Your task to perform on an android device: change timer sound Image 0: 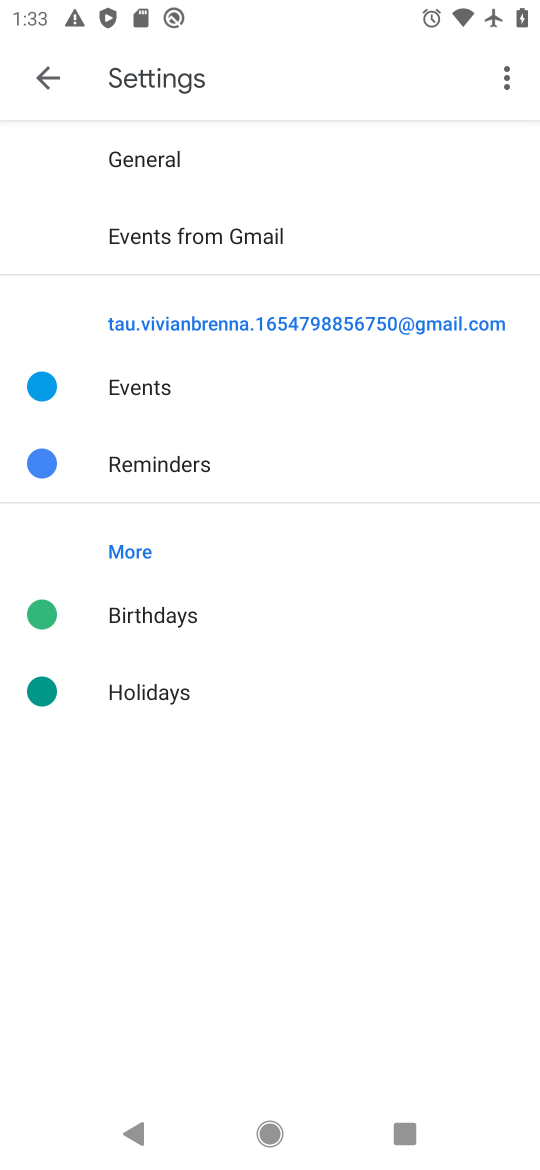
Step 0: press home button
Your task to perform on an android device: change timer sound Image 1: 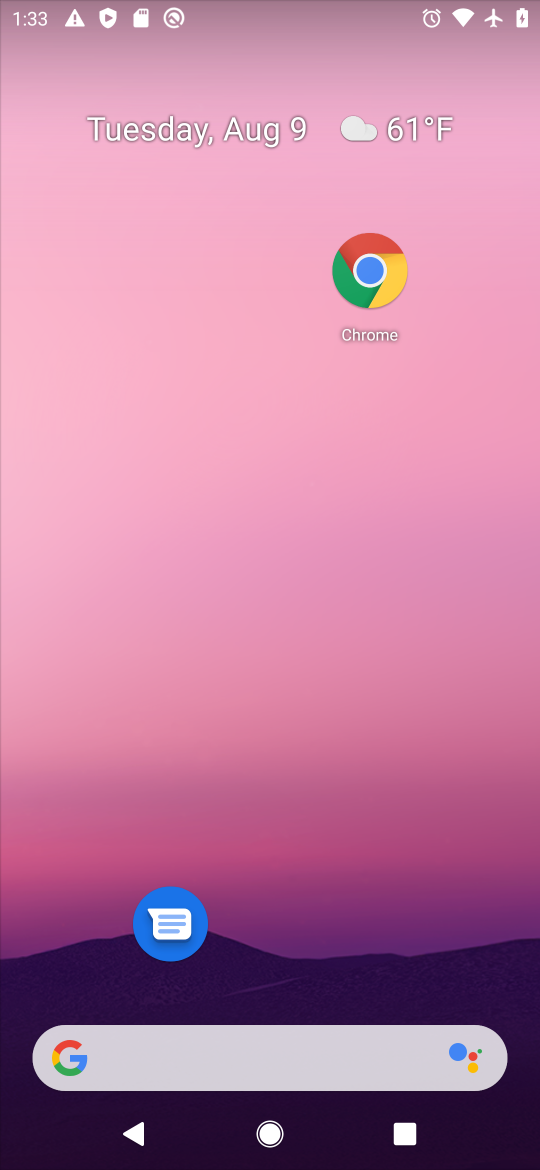
Step 1: drag from (331, 1015) to (274, 101)
Your task to perform on an android device: change timer sound Image 2: 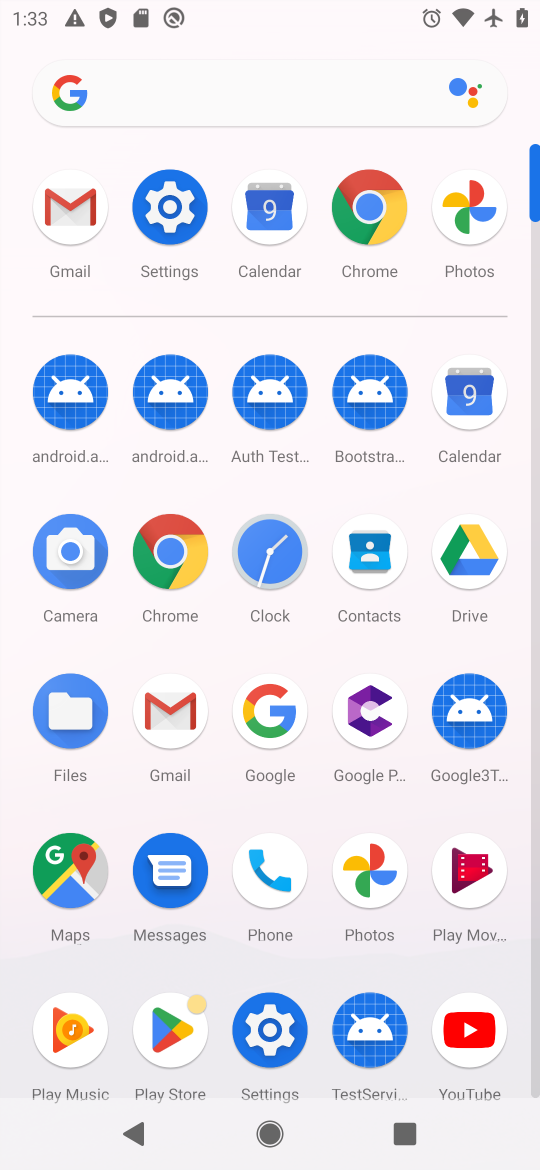
Step 2: click (197, 188)
Your task to perform on an android device: change timer sound Image 3: 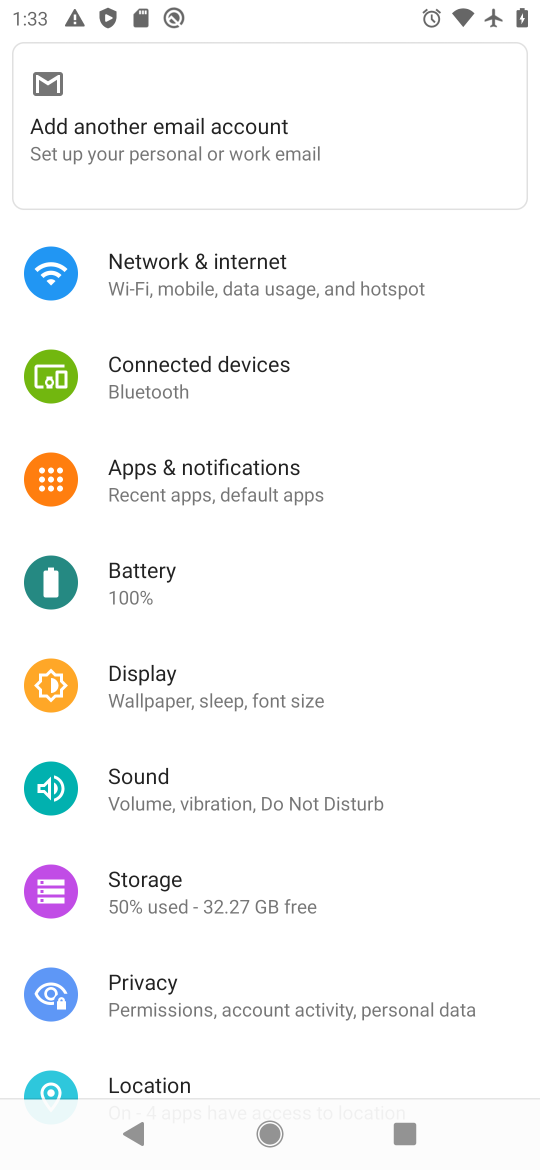
Step 3: click (325, 787)
Your task to perform on an android device: change timer sound Image 4: 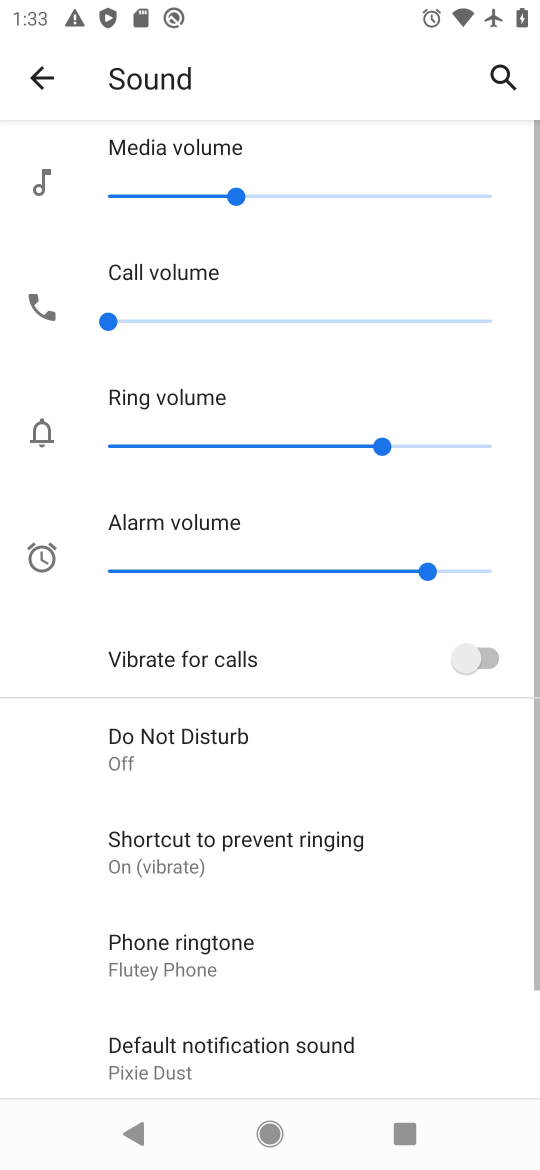
Step 4: task complete